Your task to perform on an android device: set the stopwatch Image 0: 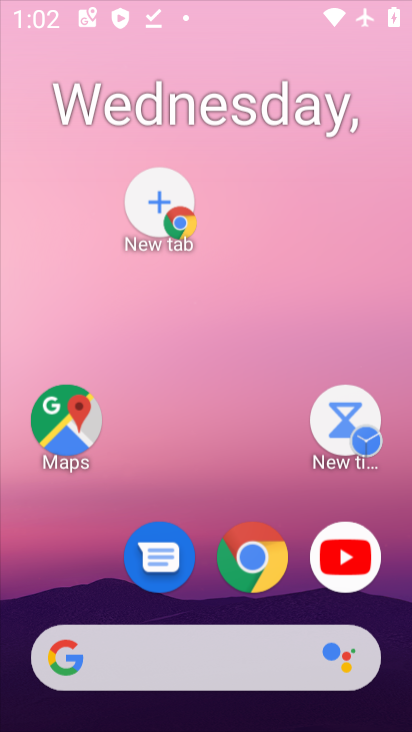
Step 0: drag from (275, 525) to (264, 8)
Your task to perform on an android device: set the stopwatch Image 1: 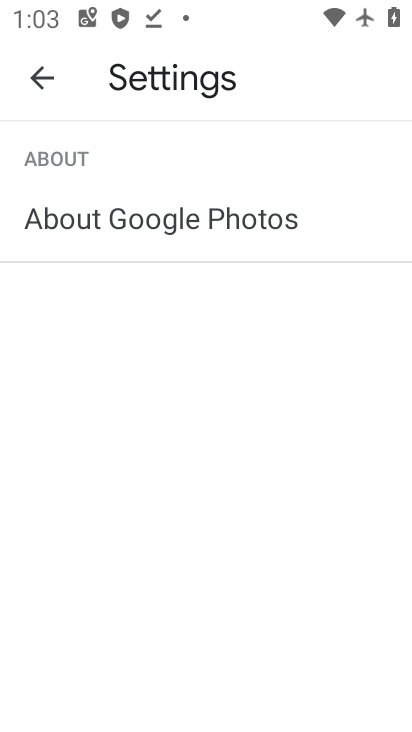
Step 1: click (39, 83)
Your task to perform on an android device: set the stopwatch Image 2: 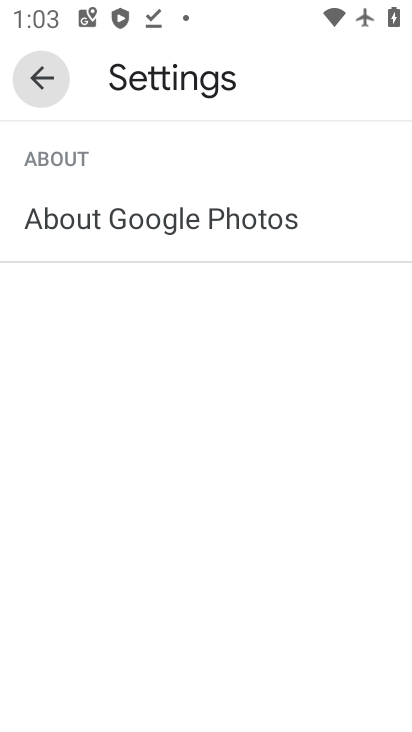
Step 2: click (44, 77)
Your task to perform on an android device: set the stopwatch Image 3: 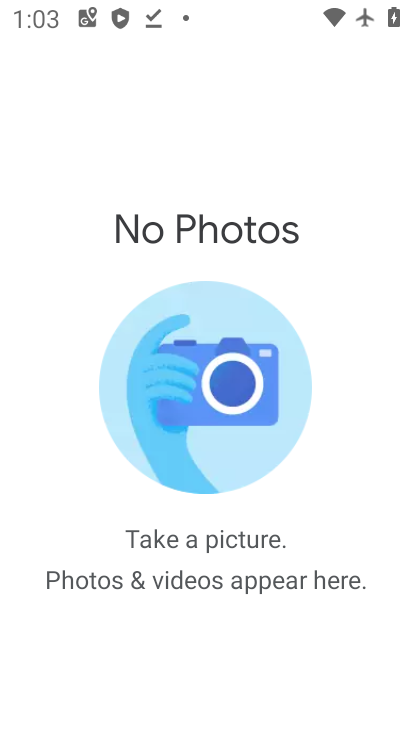
Step 3: click (43, 76)
Your task to perform on an android device: set the stopwatch Image 4: 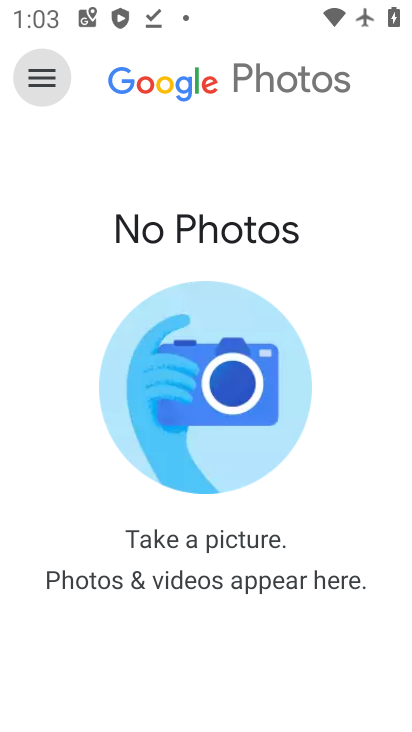
Step 4: click (43, 76)
Your task to perform on an android device: set the stopwatch Image 5: 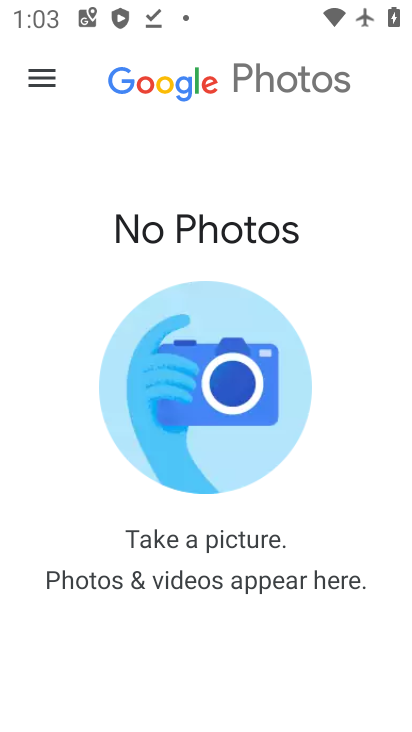
Step 5: drag from (247, 346) to (185, 54)
Your task to perform on an android device: set the stopwatch Image 6: 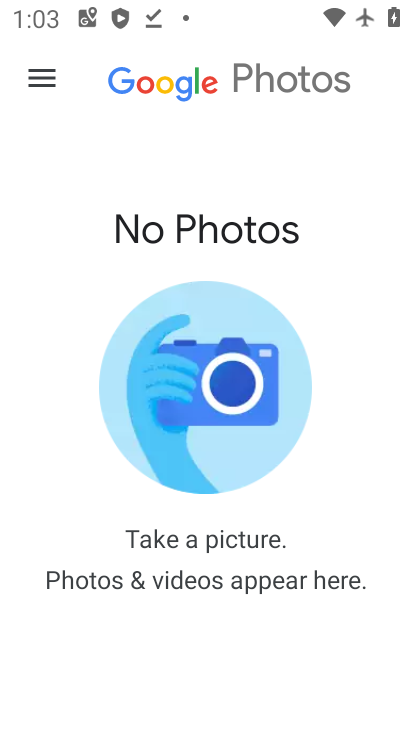
Step 6: drag from (249, 544) to (125, 114)
Your task to perform on an android device: set the stopwatch Image 7: 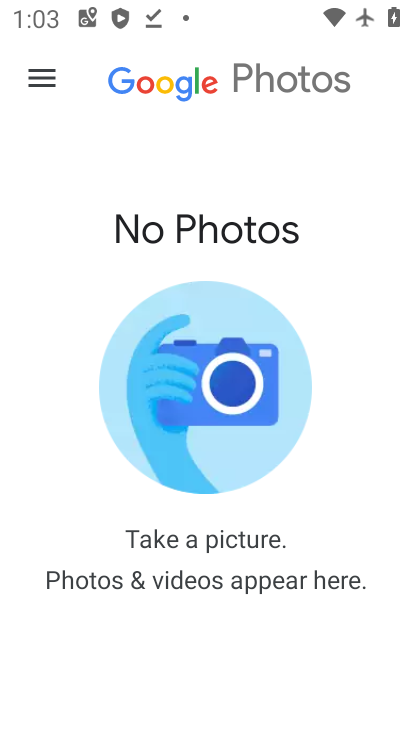
Step 7: drag from (222, 590) to (129, 173)
Your task to perform on an android device: set the stopwatch Image 8: 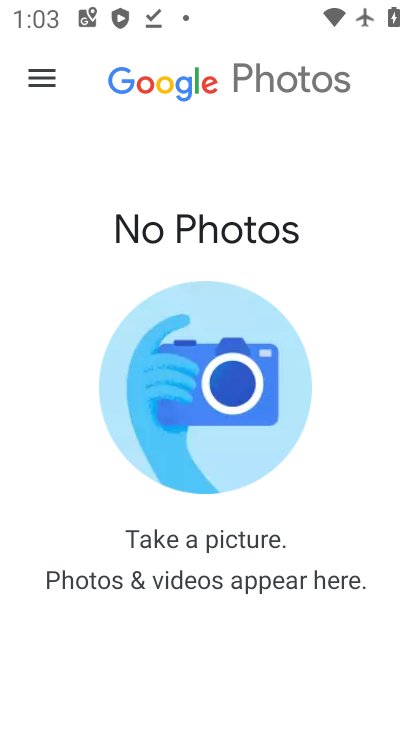
Step 8: drag from (235, 534) to (233, 205)
Your task to perform on an android device: set the stopwatch Image 9: 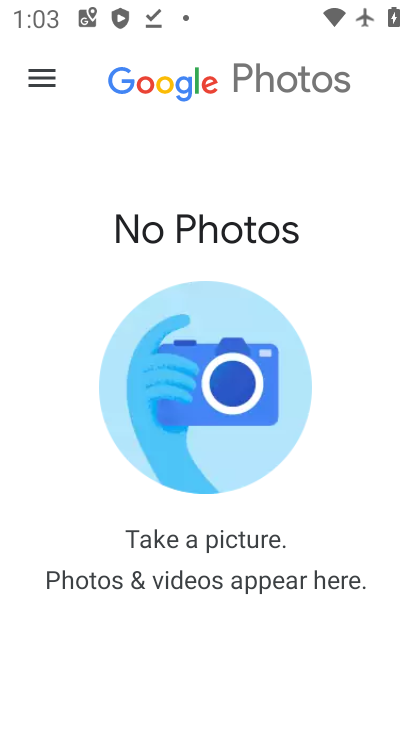
Step 9: press back button
Your task to perform on an android device: set the stopwatch Image 10: 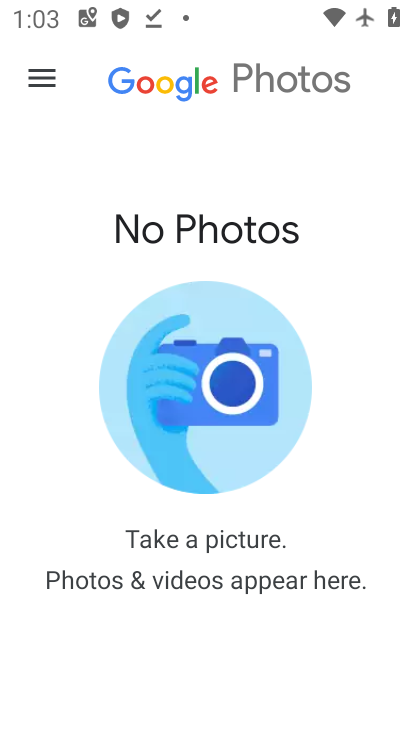
Step 10: press back button
Your task to perform on an android device: set the stopwatch Image 11: 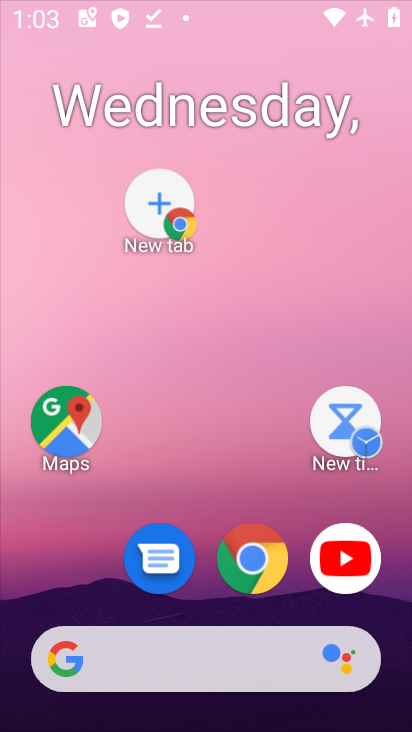
Step 11: press back button
Your task to perform on an android device: set the stopwatch Image 12: 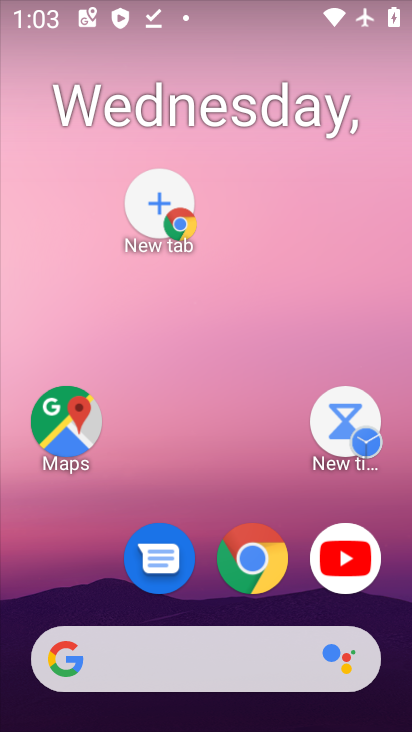
Step 12: press back button
Your task to perform on an android device: set the stopwatch Image 13: 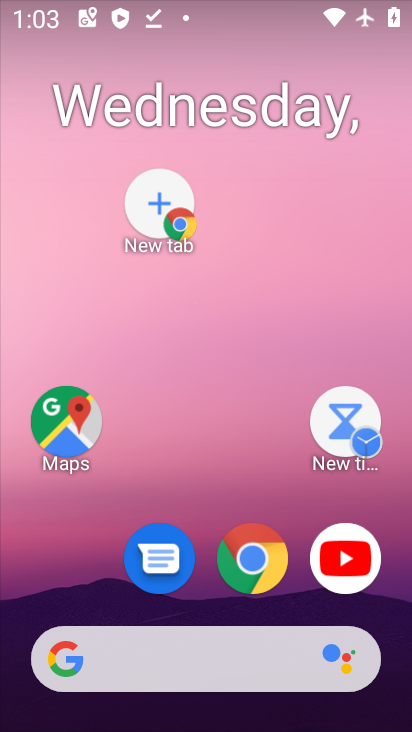
Step 13: press home button
Your task to perform on an android device: set the stopwatch Image 14: 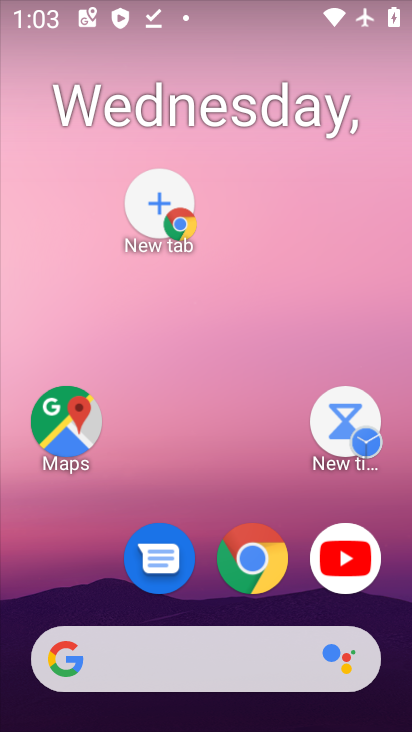
Step 14: drag from (156, 410) to (74, 76)
Your task to perform on an android device: set the stopwatch Image 15: 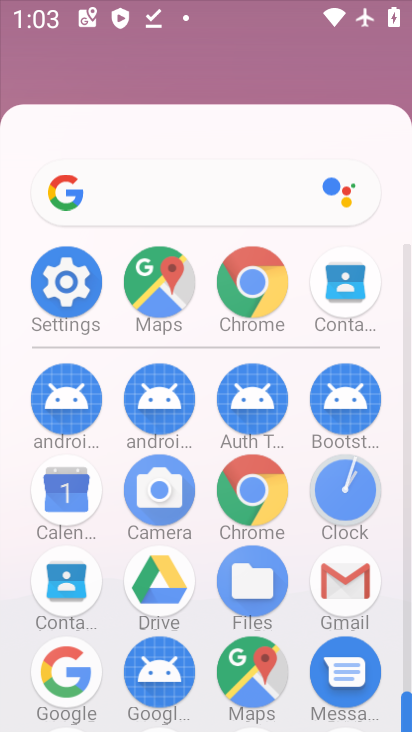
Step 15: drag from (253, 477) to (172, 63)
Your task to perform on an android device: set the stopwatch Image 16: 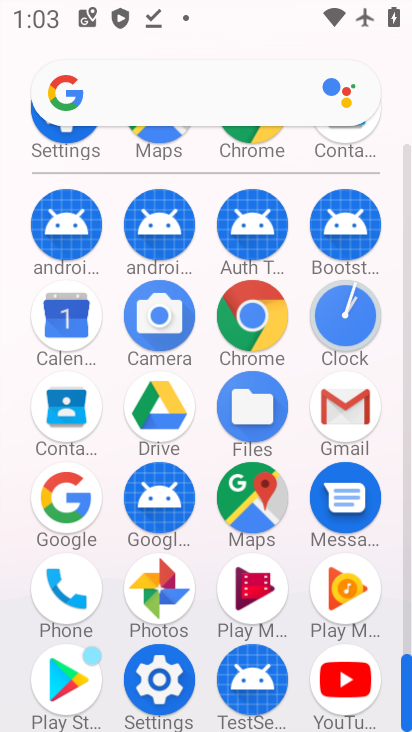
Step 16: drag from (252, 570) to (154, 15)
Your task to perform on an android device: set the stopwatch Image 17: 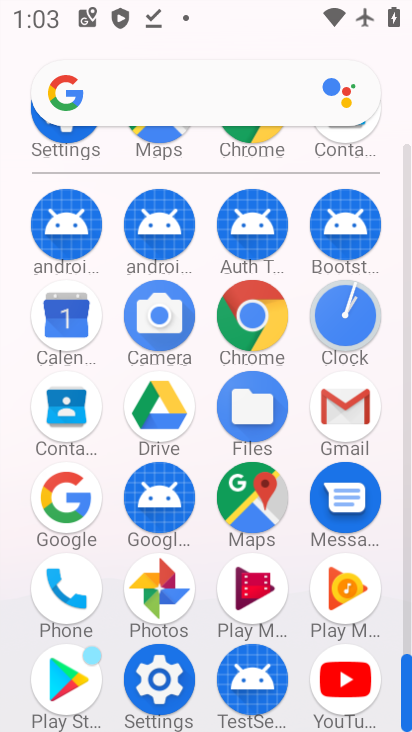
Step 17: click (337, 312)
Your task to perform on an android device: set the stopwatch Image 18: 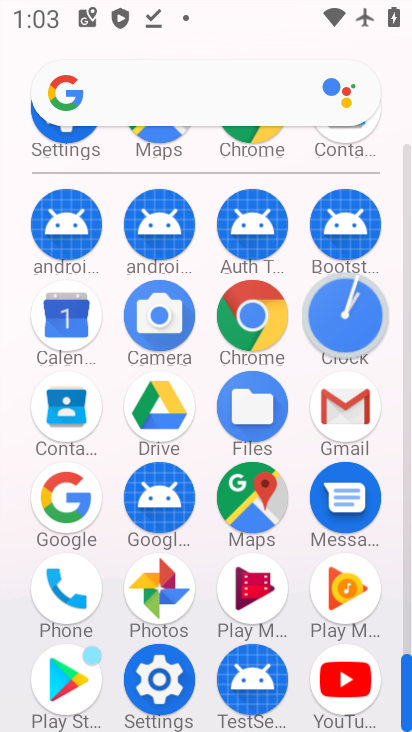
Step 18: click (344, 310)
Your task to perform on an android device: set the stopwatch Image 19: 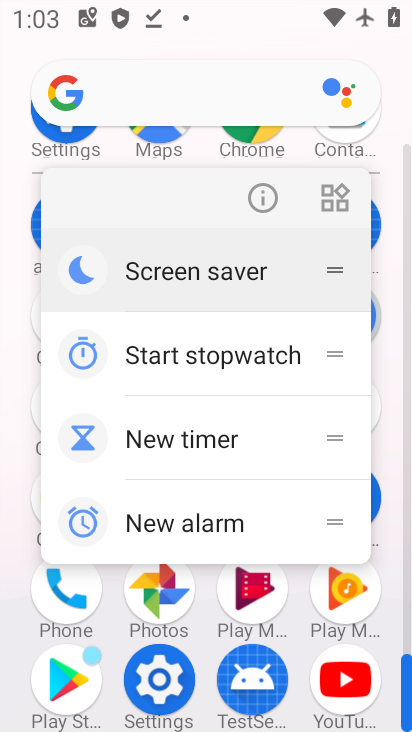
Step 19: click (341, 311)
Your task to perform on an android device: set the stopwatch Image 20: 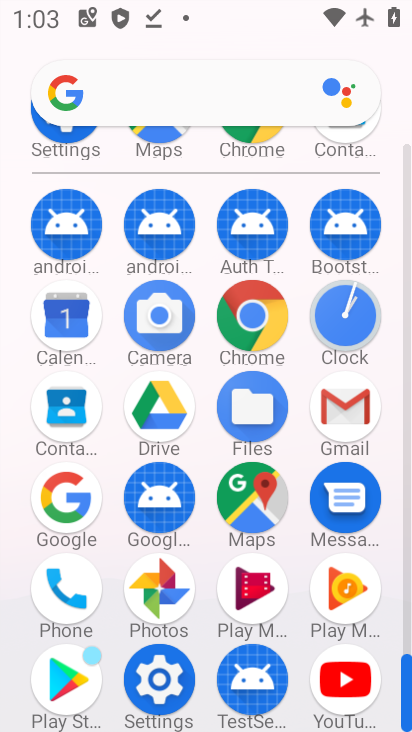
Step 20: click (335, 316)
Your task to perform on an android device: set the stopwatch Image 21: 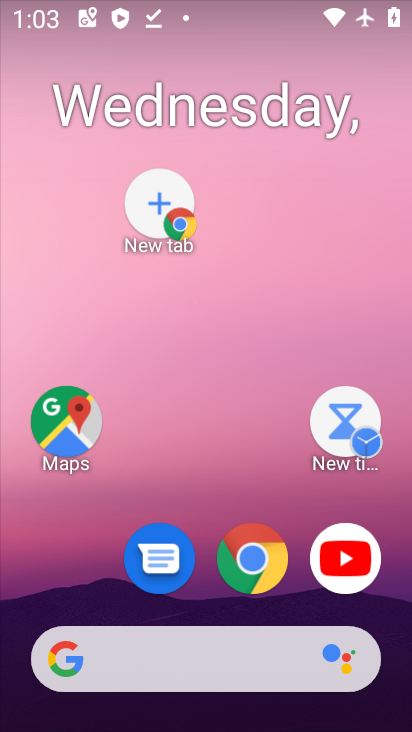
Step 21: drag from (224, 655) to (158, 104)
Your task to perform on an android device: set the stopwatch Image 22: 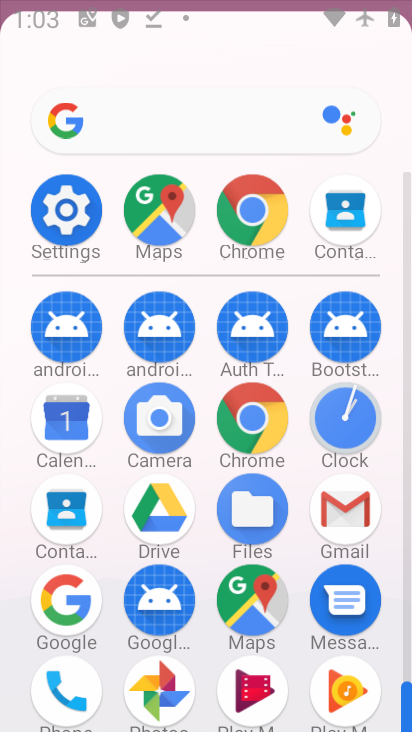
Step 22: drag from (285, 636) to (219, 159)
Your task to perform on an android device: set the stopwatch Image 23: 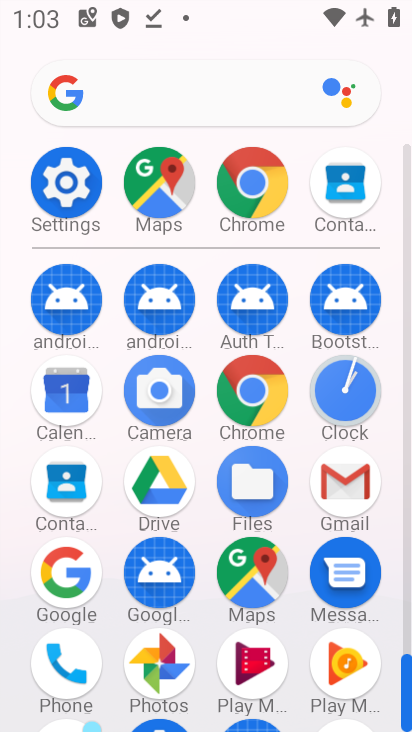
Step 23: drag from (273, 491) to (206, 70)
Your task to perform on an android device: set the stopwatch Image 24: 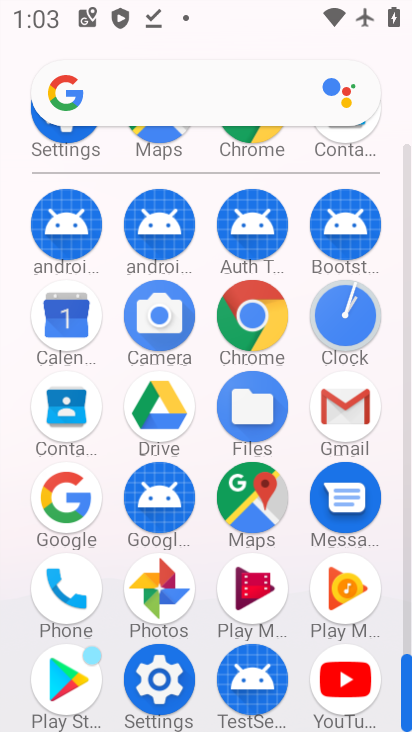
Step 24: click (336, 319)
Your task to perform on an android device: set the stopwatch Image 25: 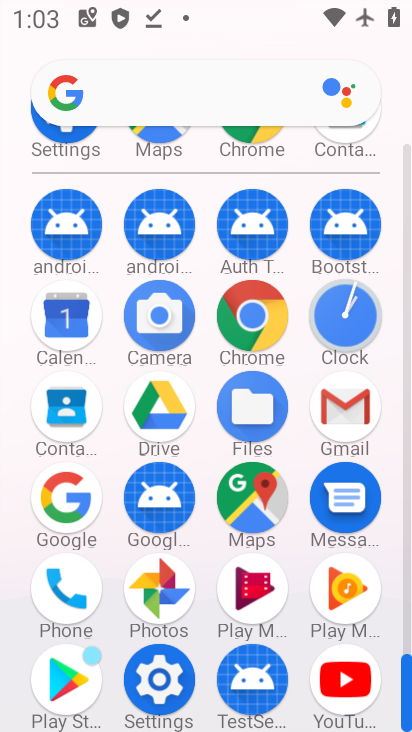
Step 25: click (336, 319)
Your task to perform on an android device: set the stopwatch Image 26: 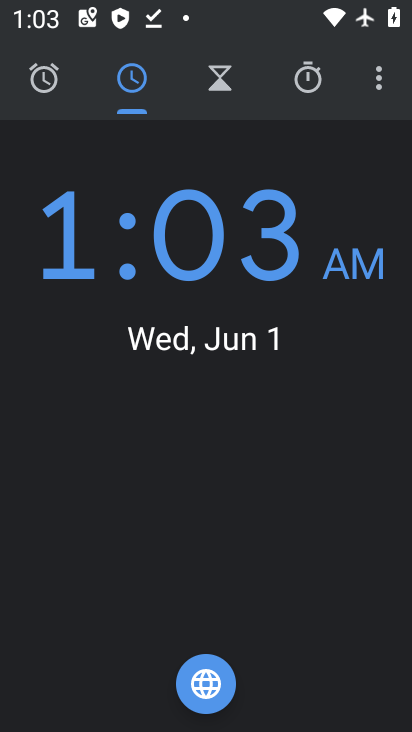
Step 26: click (376, 77)
Your task to perform on an android device: set the stopwatch Image 27: 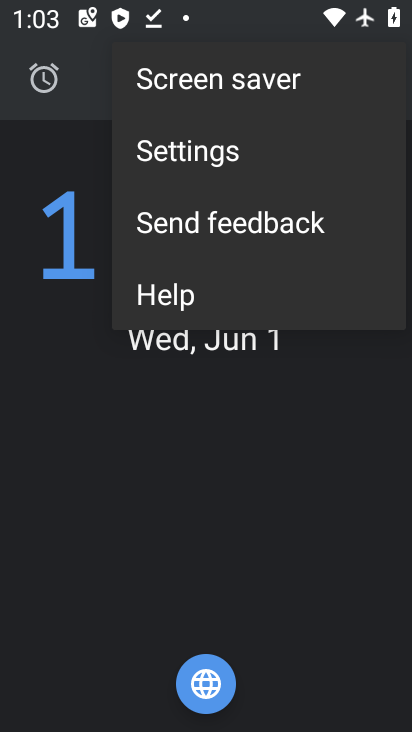
Step 27: click (148, 454)
Your task to perform on an android device: set the stopwatch Image 28: 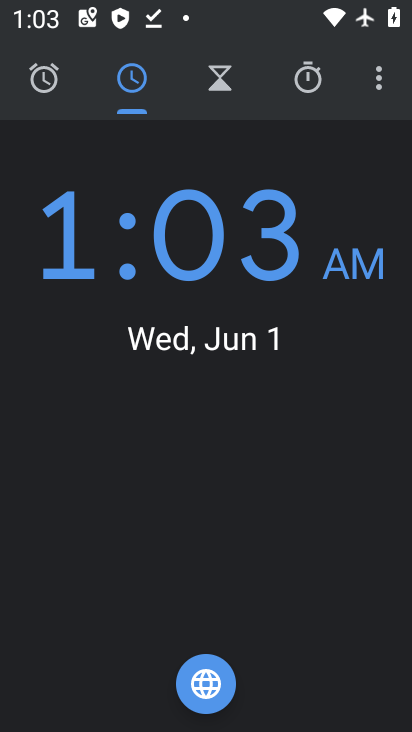
Step 28: click (300, 73)
Your task to perform on an android device: set the stopwatch Image 29: 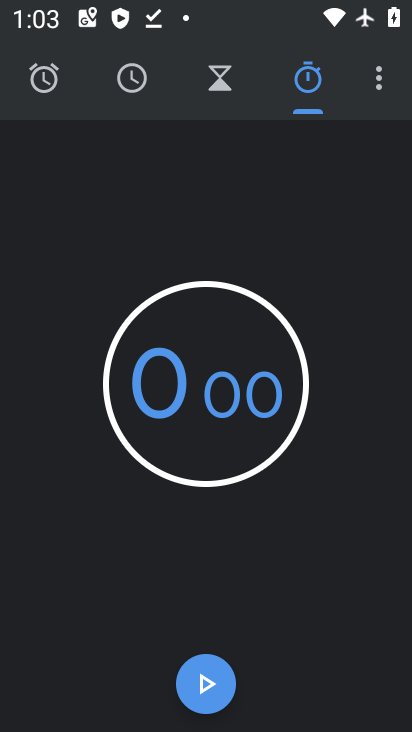
Step 29: task complete